Your task to perform on an android device: Show me popular games on the Play Store Image 0: 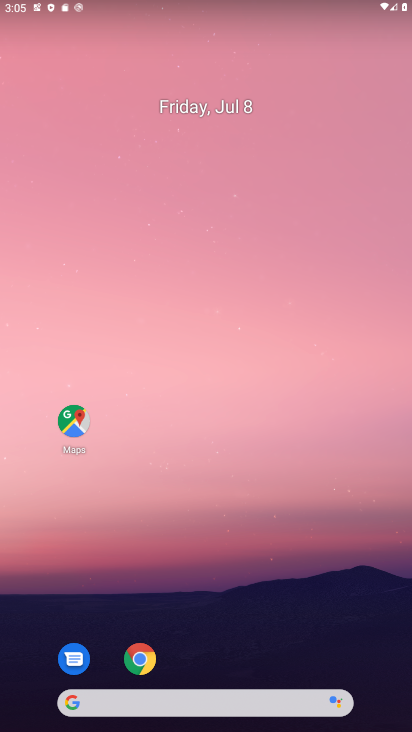
Step 0: drag from (212, 649) to (230, 204)
Your task to perform on an android device: Show me popular games on the Play Store Image 1: 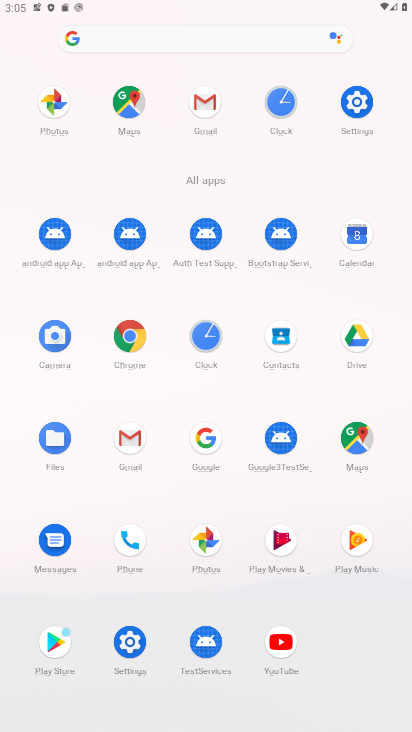
Step 1: click (43, 654)
Your task to perform on an android device: Show me popular games on the Play Store Image 2: 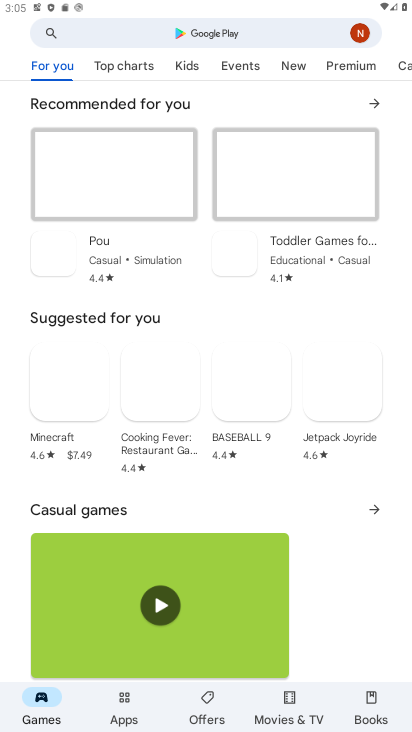
Step 2: click (222, 40)
Your task to perform on an android device: Show me popular games on the Play Store Image 3: 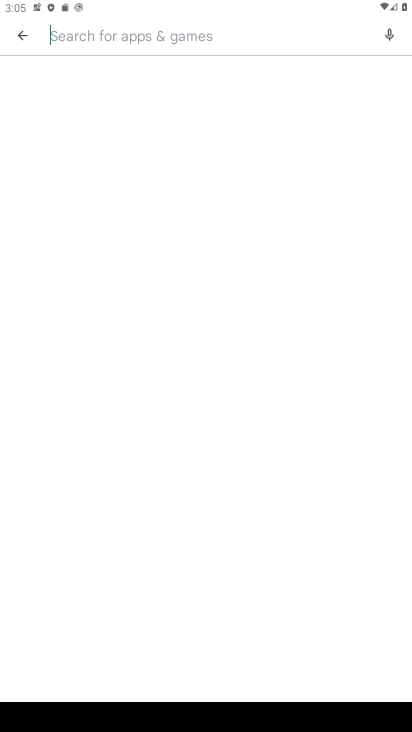
Step 3: click (27, 35)
Your task to perform on an android device: Show me popular games on the Play Store Image 4: 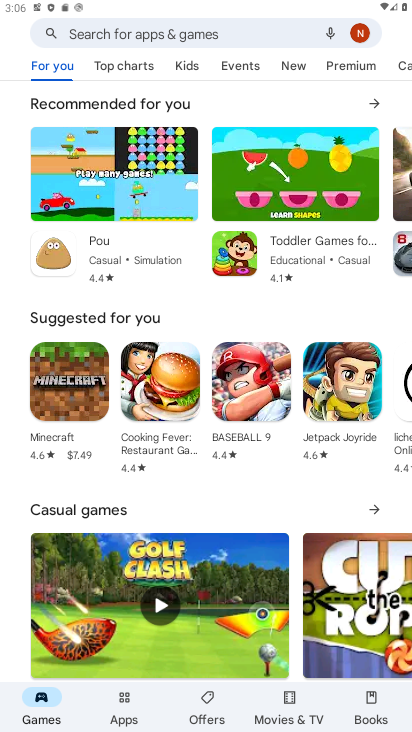
Step 4: click (119, 66)
Your task to perform on an android device: Show me popular games on the Play Store Image 5: 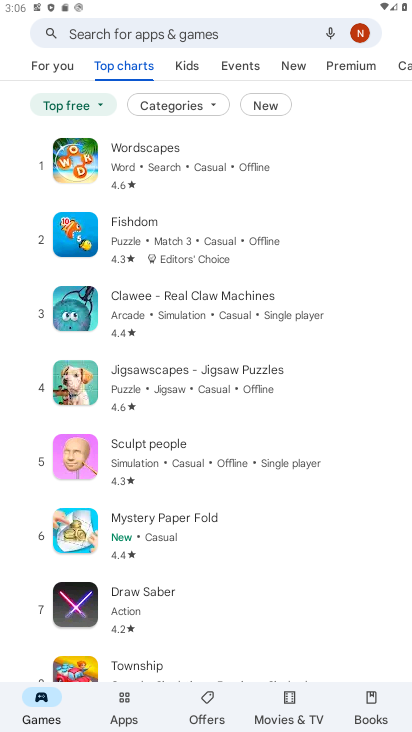
Step 5: task complete